Your task to perform on an android device: Open Maps and search for coffee Image 0: 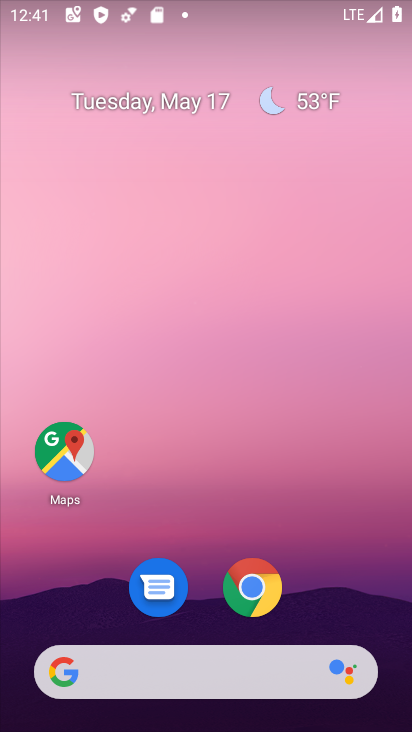
Step 0: drag from (202, 632) to (134, 55)
Your task to perform on an android device: Open Maps and search for coffee Image 1: 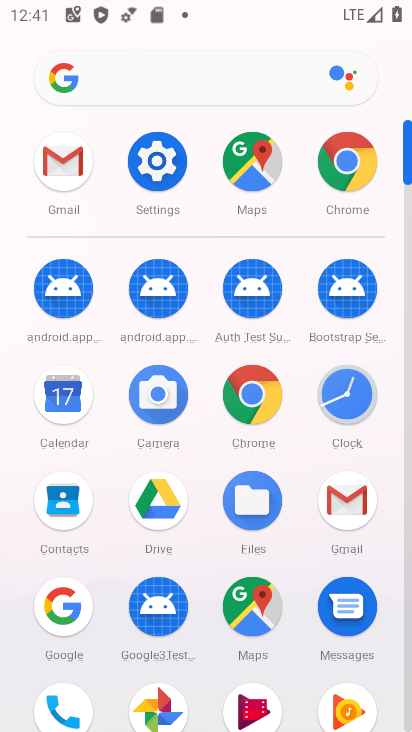
Step 1: click (255, 611)
Your task to perform on an android device: Open Maps and search for coffee Image 2: 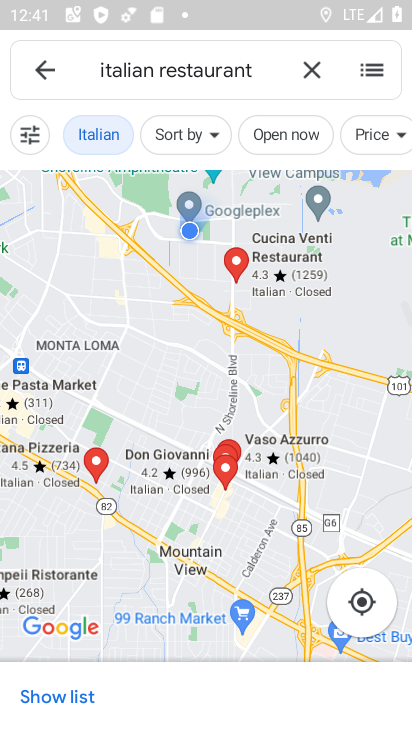
Step 2: click (314, 64)
Your task to perform on an android device: Open Maps and search for coffee Image 3: 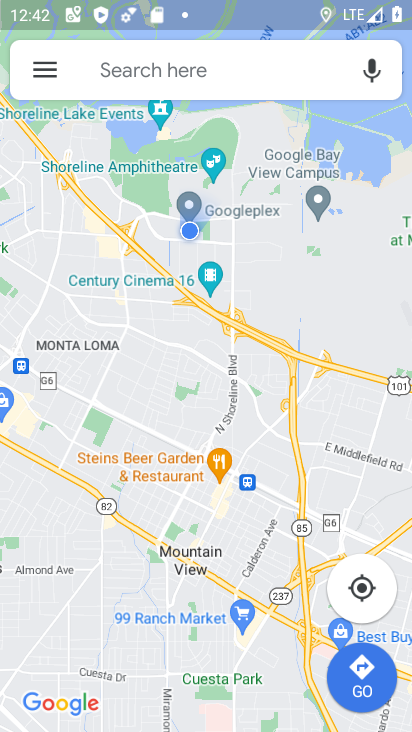
Step 3: click (226, 80)
Your task to perform on an android device: Open Maps and search for coffee Image 4: 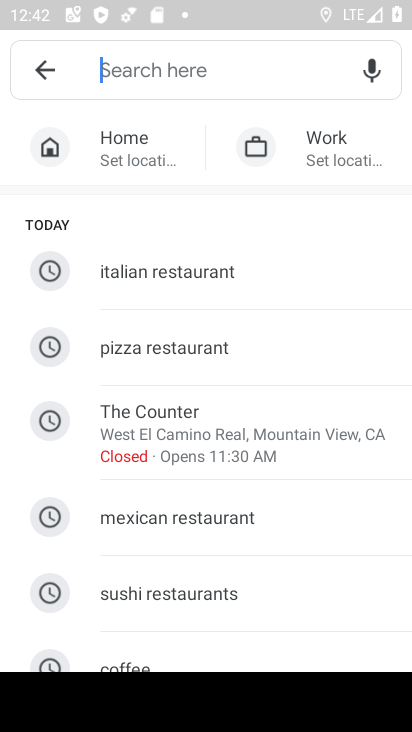
Step 4: click (145, 669)
Your task to perform on an android device: Open Maps and search for coffee Image 5: 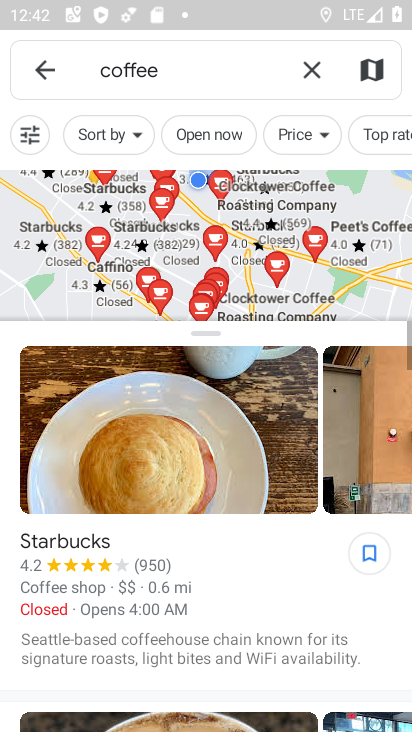
Step 5: task complete